Your task to perform on an android device: change keyboard looks Image 0: 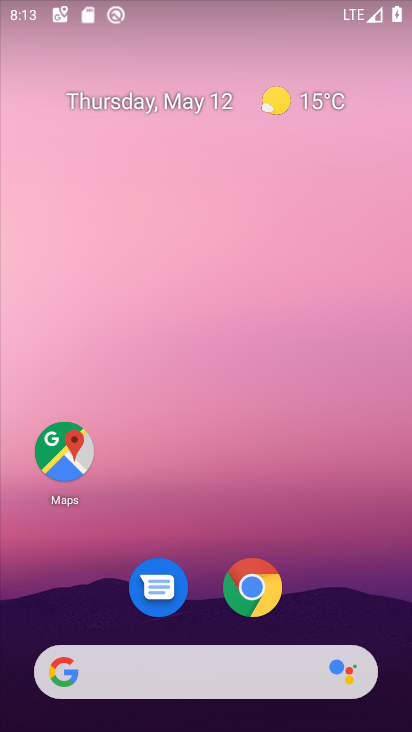
Step 0: drag from (395, 621) to (261, 66)
Your task to perform on an android device: change keyboard looks Image 1: 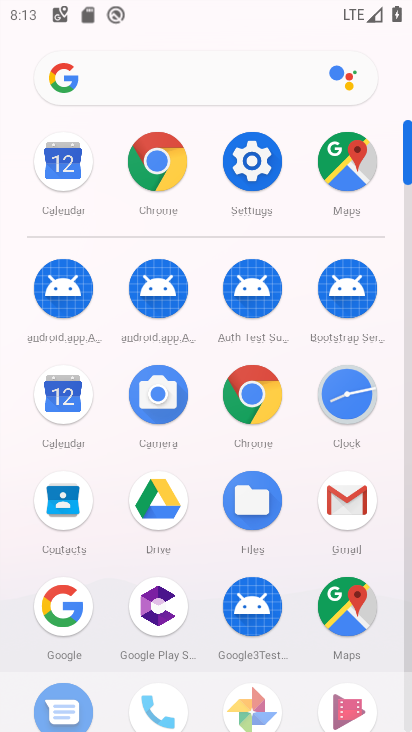
Step 1: click (255, 152)
Your task to perform on an android device: change keyboard looks Image 2: 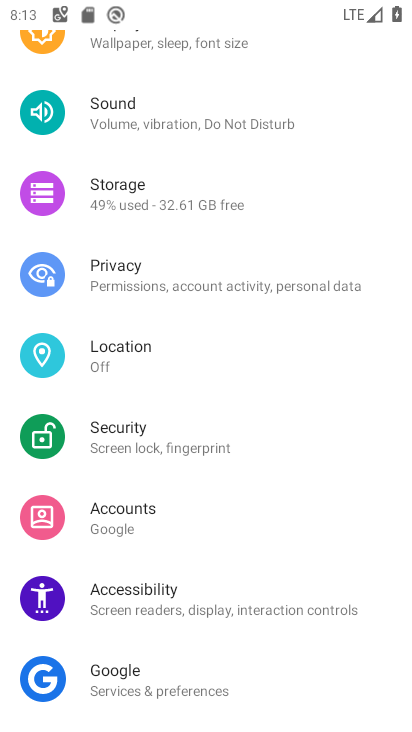
Step 2: drag from (215, 675) to (178, 41)
Your task to perform on an android device: change keyboard looks Image 3: 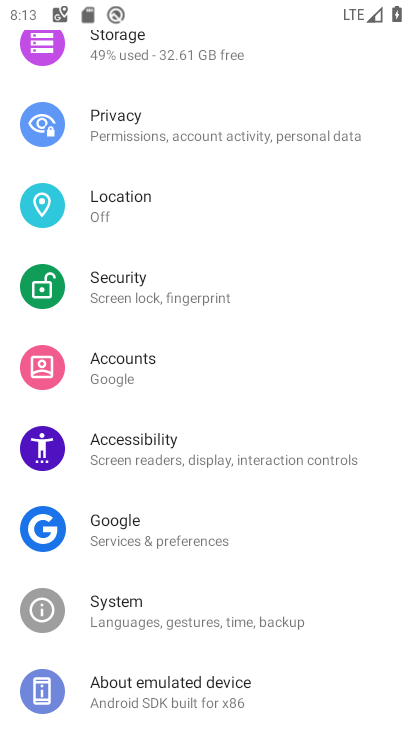
Step 3: click (234, 624)
Your task to perform on an android device: change keyboard looks Image 4: 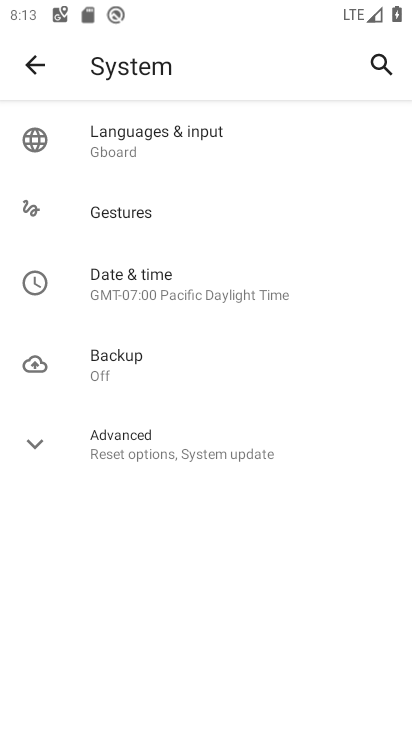
Step 4: click (232, 144)
Your task to perform on an android device: change keyboard looks Image 5: 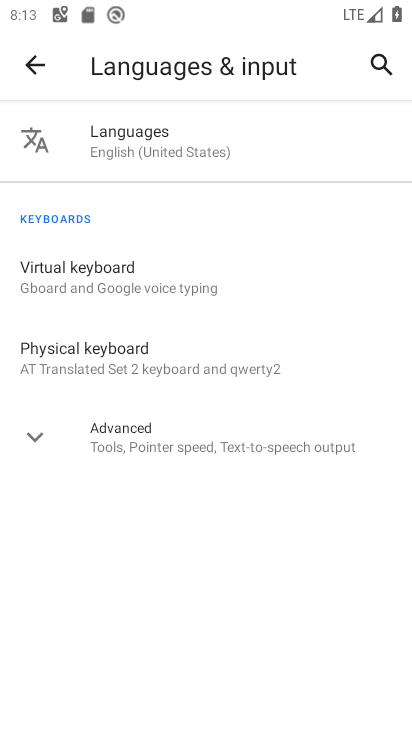
Step 5: click (135, 306)
Your task to perform on an android device: change keyboard looks Image 6: 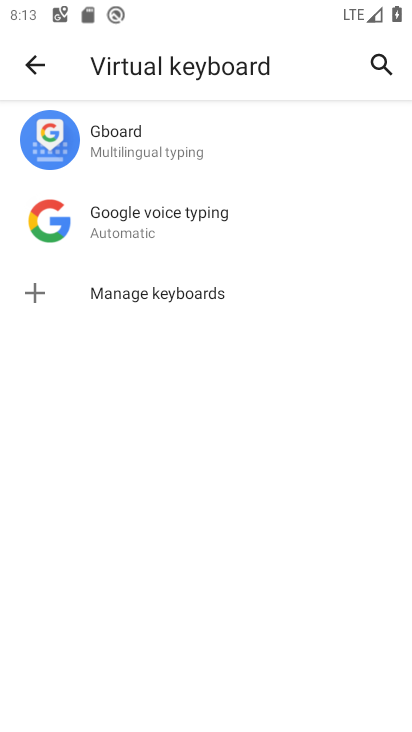
Step 6: click (142, 125)
Your task to perform on an android device: change keyboard looks Image 7: 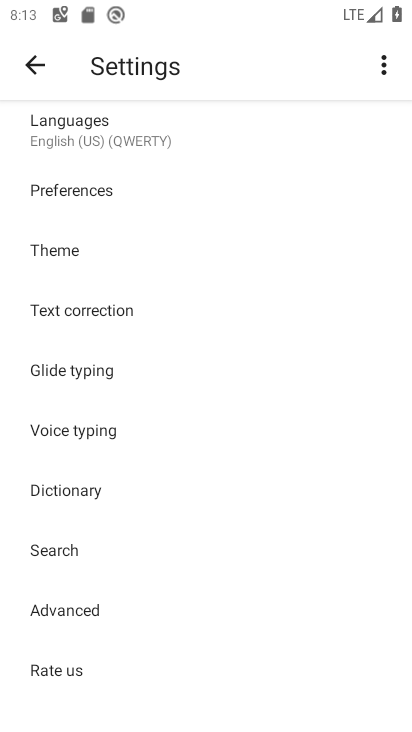
Step 7: click (176, 257)
Your task to perform on an android device: change keyboard looks Image 8: 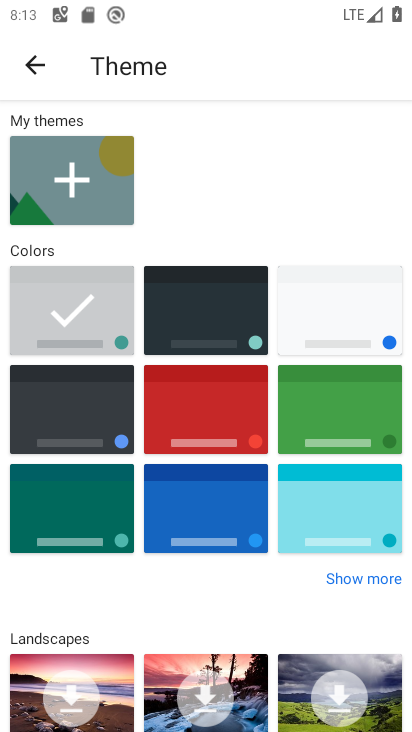
Step 8: click (205, 297)
Your task to perform on an android device: change keyboard looks Image 9: 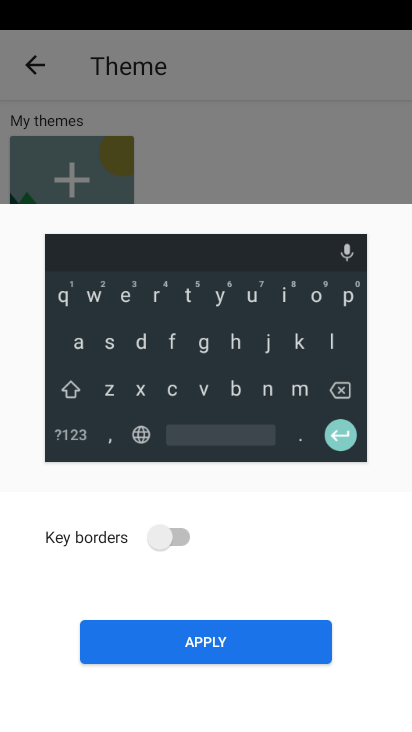
Step 9: click (232, 668)
Your task to perform on an android device: change keyboard looks Image 10: 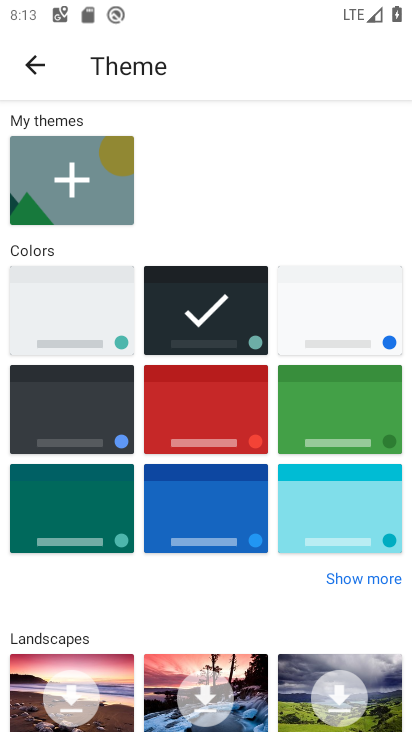
Step 10: task complete